Your task to perform on an android device: clear all cookies in the chrome app Image 0: 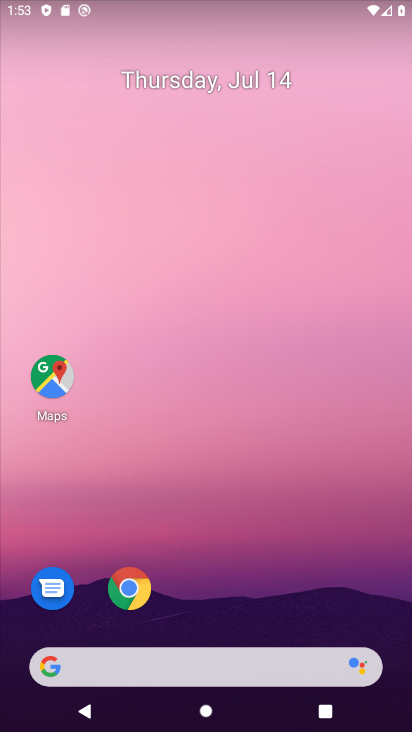
Step 0: click (129, 593)
Your task to perform on an android device: clear all cookies in the chrome app Image 1: 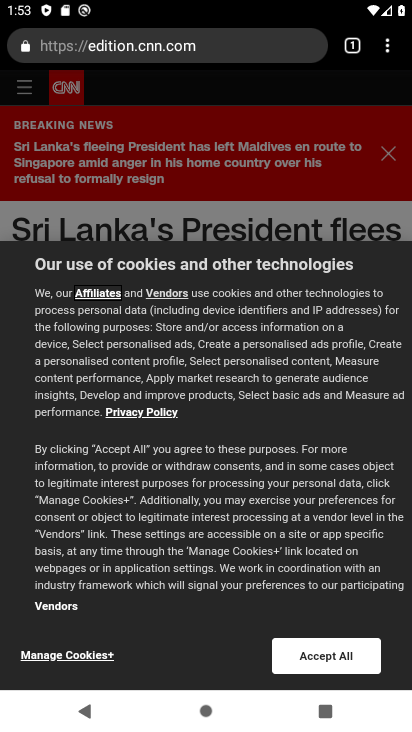
Step 1: click (387, 42)
Your task to perform on an android device: clear all cookies in the chrome app Image 2: 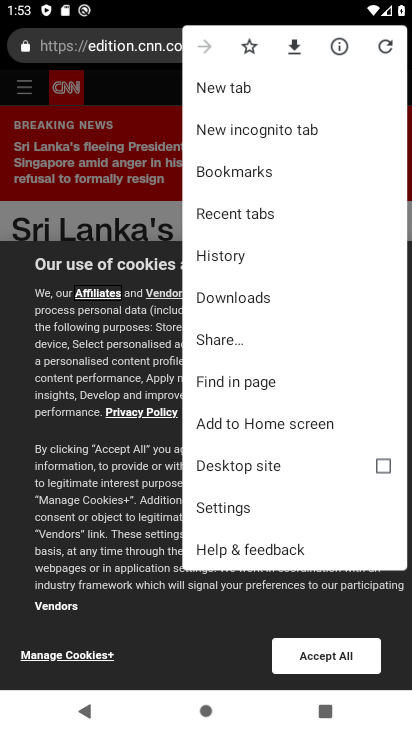
Step 2: click (236, 257)
Your task to perform on an android device: clear all cookies in the chrome app Image 3: 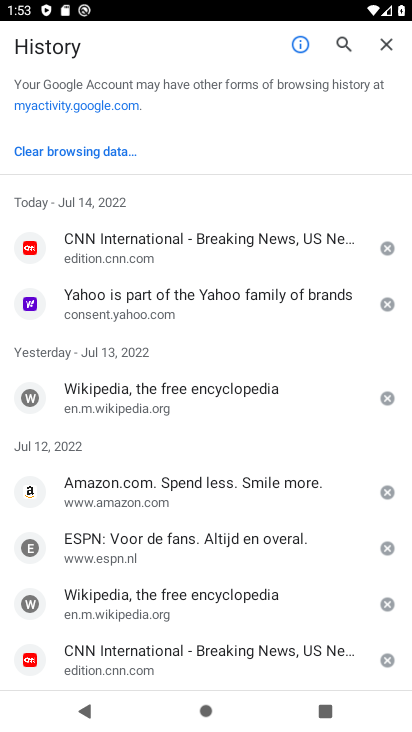
Step 3: click (50, 154)
Your task to perform on an android device: clear all cookies in the chrome app Image 4: 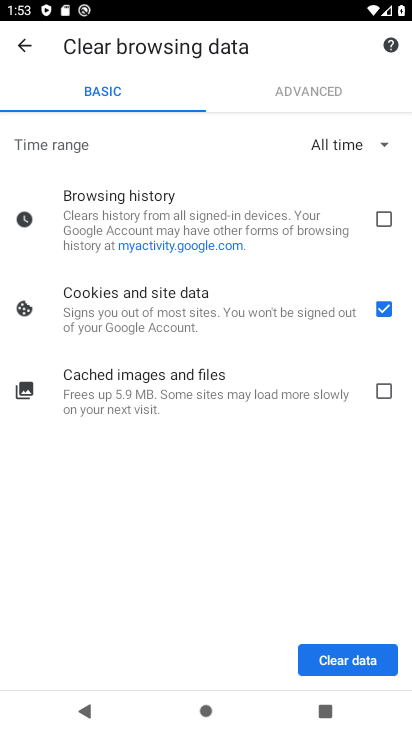
Step 4: click (351, 658)
Your task to perform on an android device: clear all cookies in the chrome app Image 5: 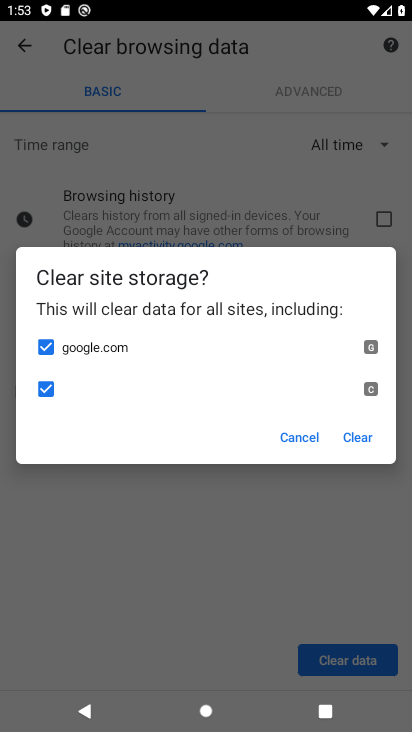
Step 5: click (365, 434)
Your task to perform on an android device: clear all cookies in the chrome app Image 6: 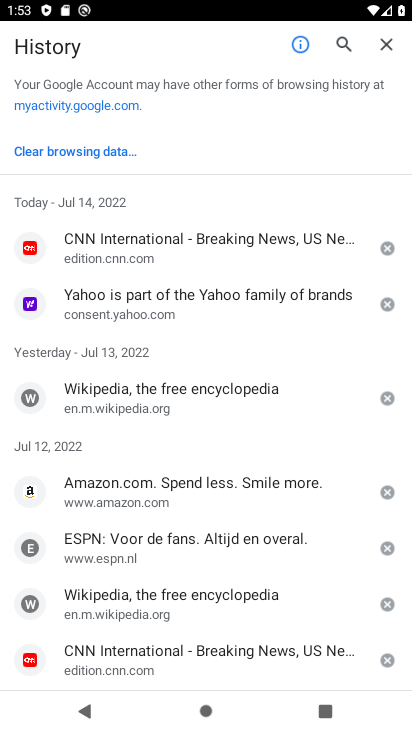
Step 6: task complete